Your task to perform on an android device: Open Youtube and go to "Your channel" Image 0: 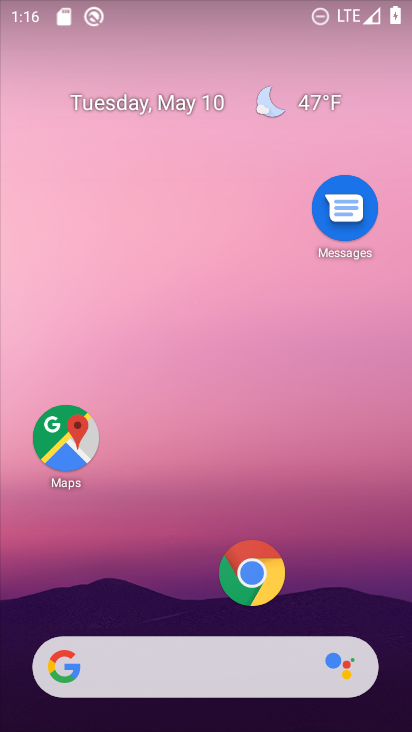
Step 0: click (295, 179)
Your task to perform on an android device: Open Youtube and go to "Your channel" Image 1: 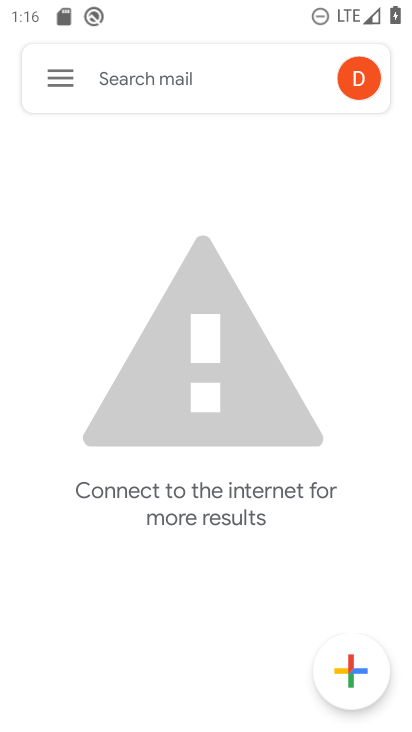
Step 1: drag from (174, 546) to (267, 182)
Your task to perform on an android device: Open Youtube and go to "Your channel" Image 2: 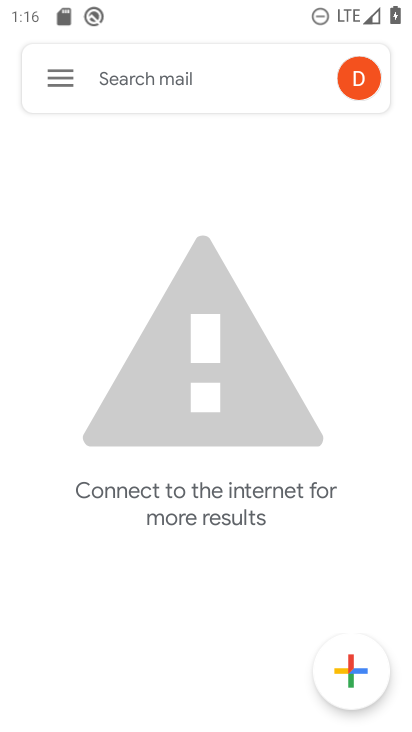
Step 2: press home button
Your task to perform on an android device: Open Youtube and go to "Your channel" Image 3: 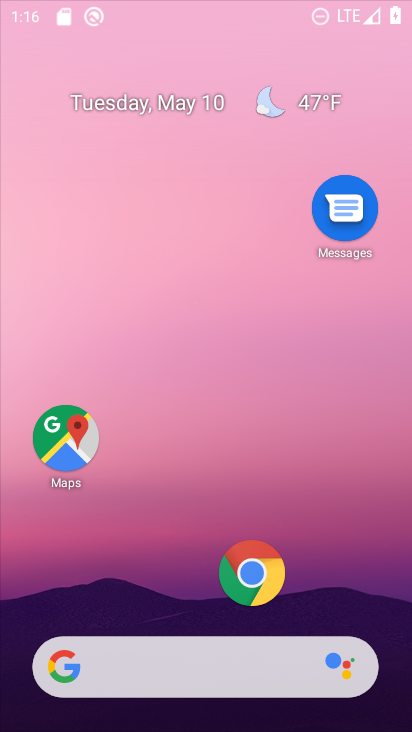
Step 3: drag from (178, 677) to (237, 269)
Your task to perform on an android device: Open Youtube and go to "Your channel" Image 4: 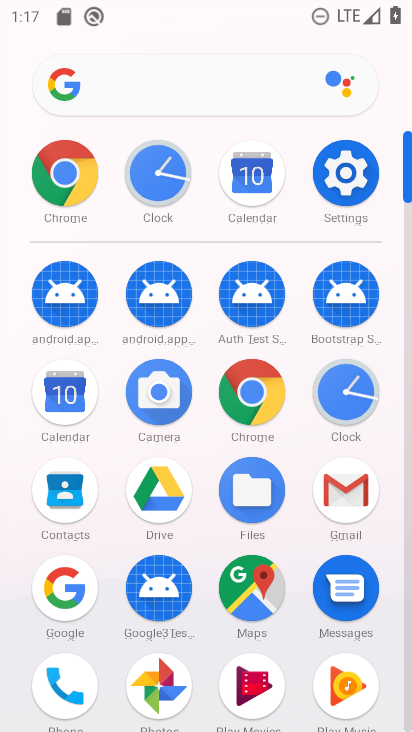
Step 4: click (246, 388)
Your task to perform on an android device: Open Youtube and go to "Your channel" Image 5: 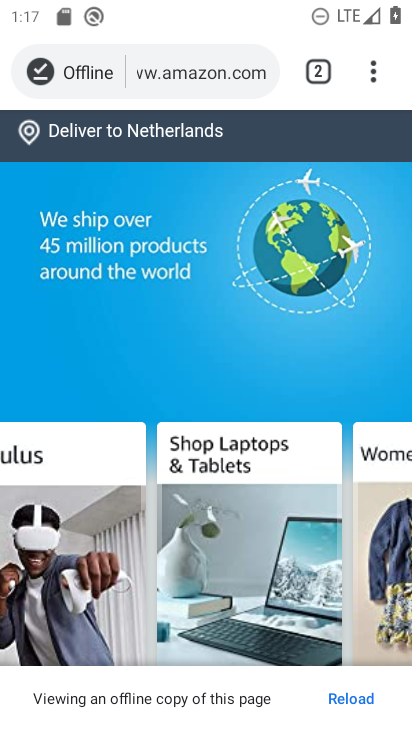
Step 5: drag from (225, 597) to (297, 260)
Your task to perform on an android device: Open Youtube and go to "Your channel" Image 6: 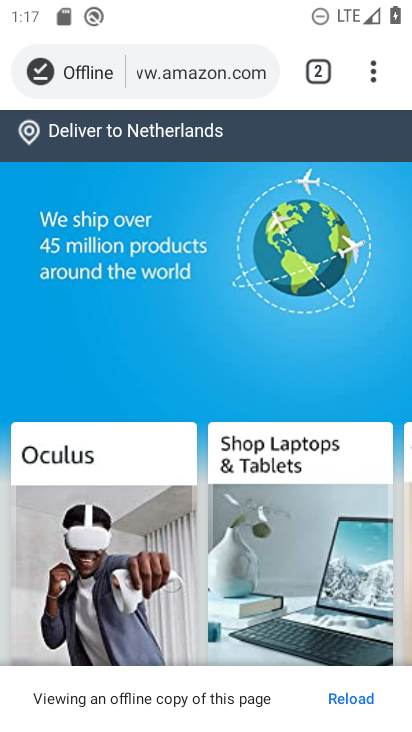
Step 6: drag from (196, 619) to (203, 350)
Your task to perform on an android device: Open Youtube and go to "Your channel" Image 7: 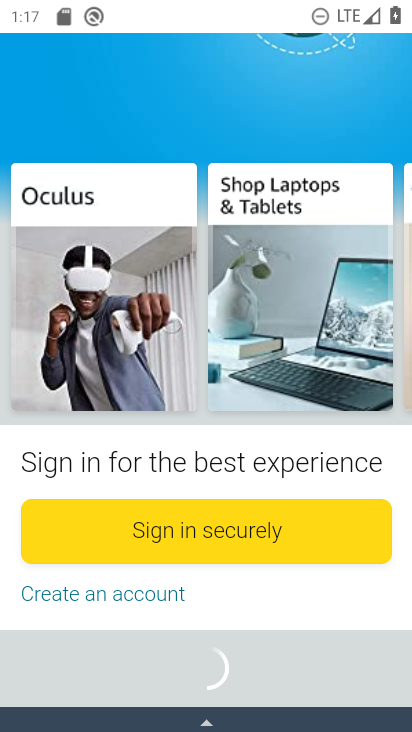
Step 7: drag from (162, 602) to (232, 263)
Your task to perform on an android device: Open Youtube and go to "Your channel" Image 8: 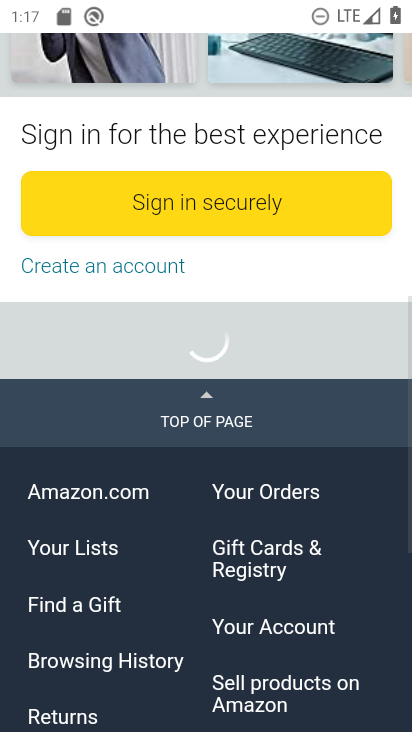
Step 8: drag from (234, 261) to (62, 718)
Your task to perform on an android device: Open Youtube and go to "Your channel" Image 9: 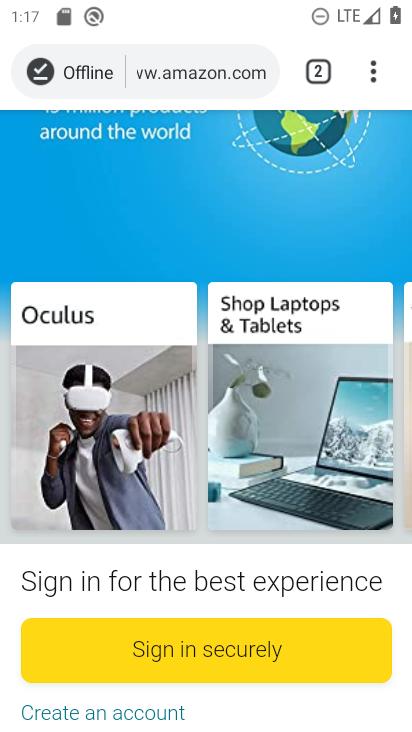
Step 9: press back button
Your task to perform on an android device: Open Youtube and go to "Your channel" Image 10: 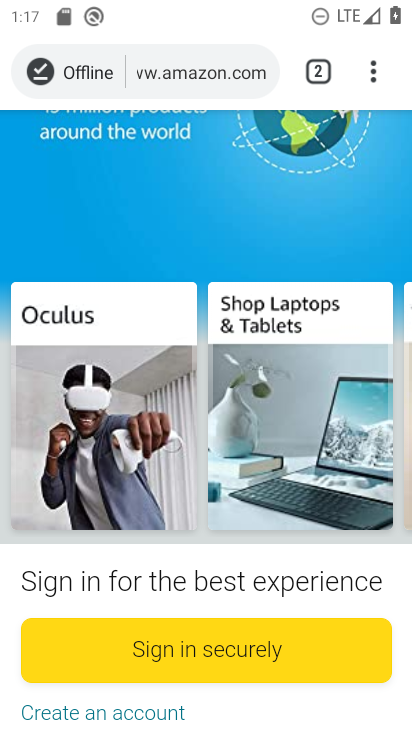
Step 10: press back button
Your task to perform on an android device: Open Youtube and go to "Your channel" Image 11: 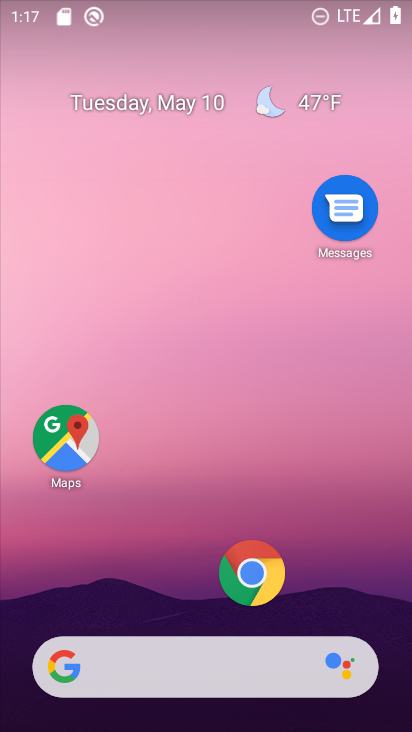
Step 11: press home button
Your task to perform on an android device: Open Youtube and go to "Your channel" Image 12: 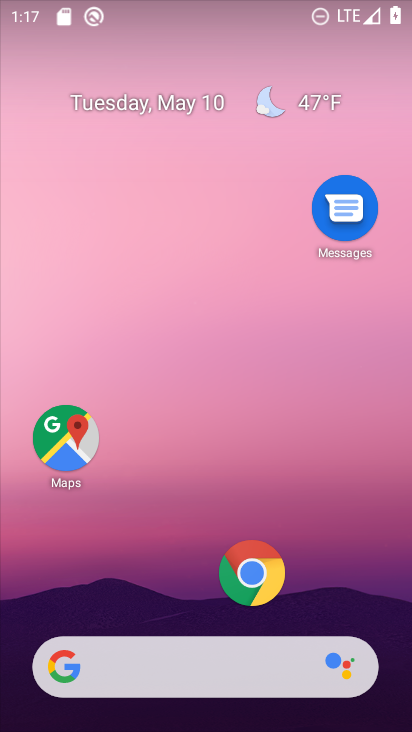
Step 12: drag from (127, 631) to (194, 340)
Your task to perform on an android device: Open Youtube and go to "Your channel" Image 13: 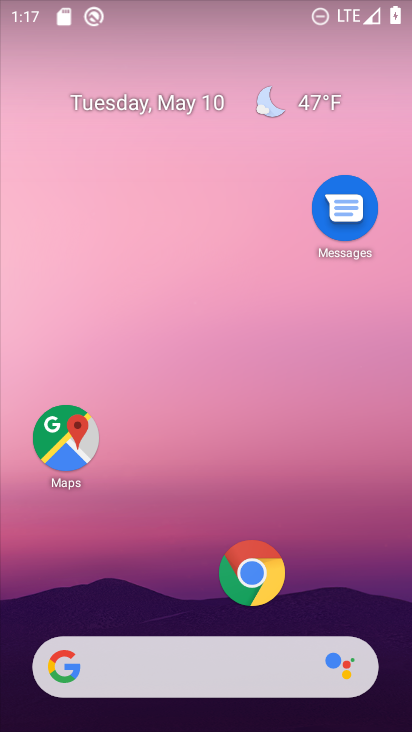
Step 13: drag from (165, 603) to (255, 174)
Your task to perform on an android device: Open Youtube and go to "Your channel" Image 14: 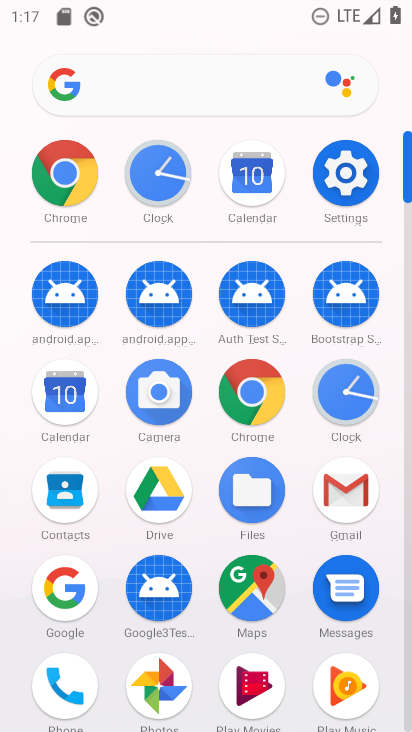
Step 14: drag from (209, 646) to (230, 300)
Your task to perform on an android device: Open Youtube and go to "Your channel" Image 15: 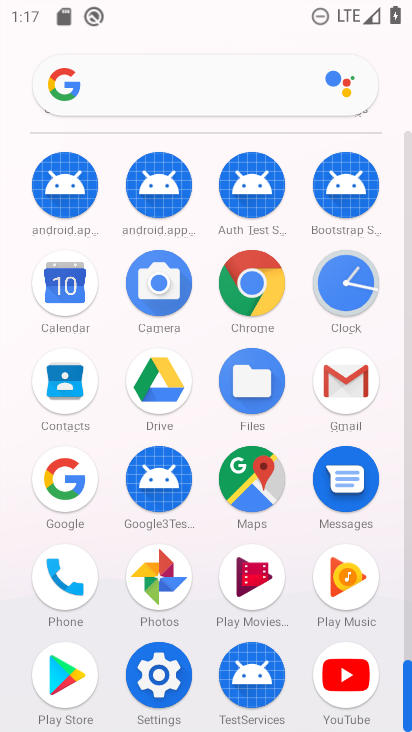
Step 15: click (343, 656)
Your task to perform on an android device: Open Youtube and go to "Your channel" Image 16: 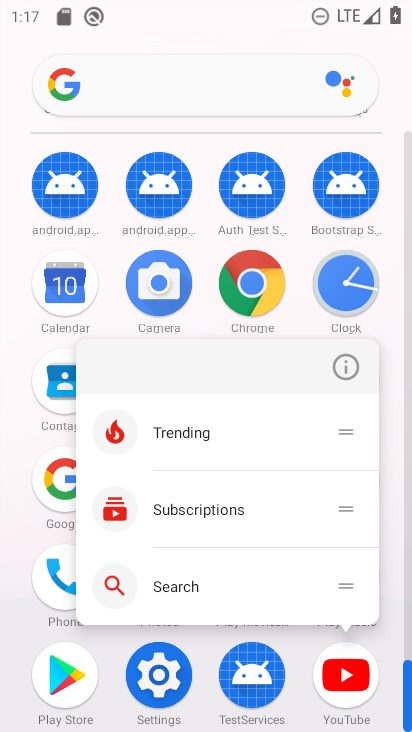
Step 16: click (347, 365)
Your task to perform on an android device: Open Youtube and go to "Your channel" Image 17: 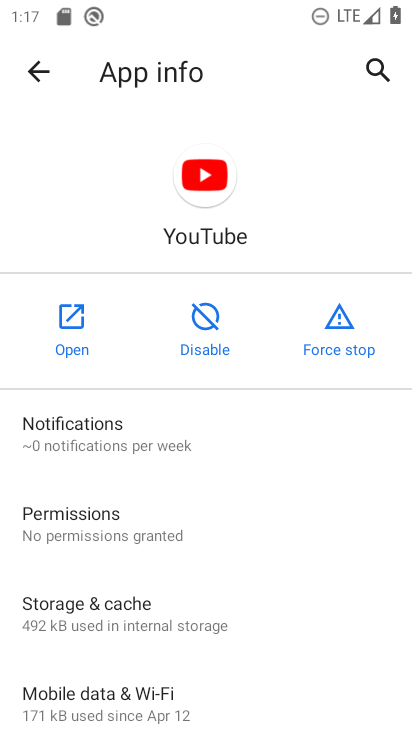
Step 17: click (75, 312)
Your task to perform on an android device: Open Youtube and go to "Your channel" Image 18: 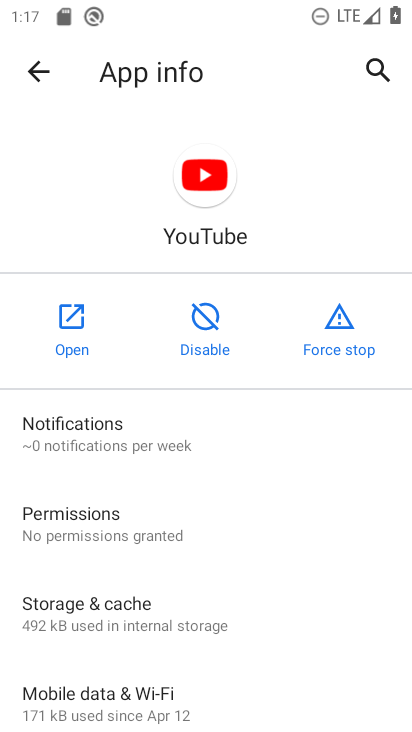
Step 18: click (75, 312)
Your task to perform on an android device: Open Youtube and go to "Your channel" Image 19: 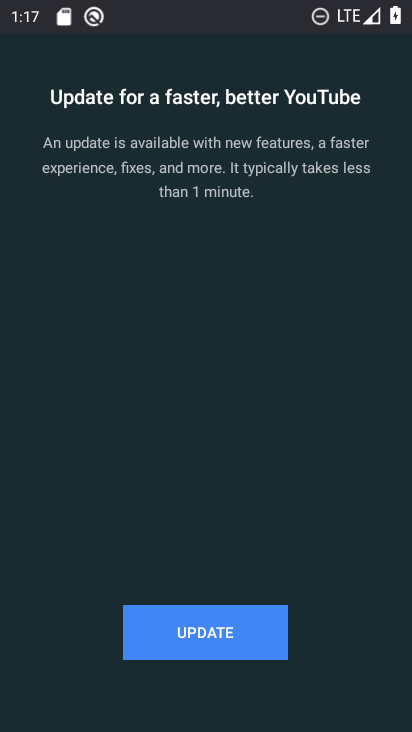
Step 19: task complete